Your task to perform on an android device: manage bookmarks in the chrome app Image 0: 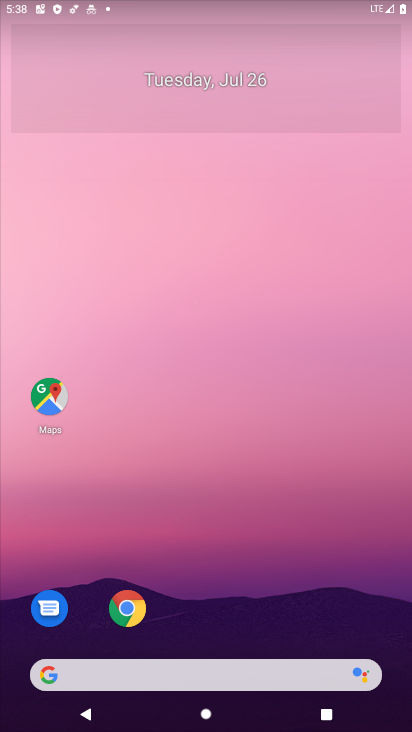
Step 0: press home button
Your task to perform on an android device: manage bookmarks in the chrome app Image 1: 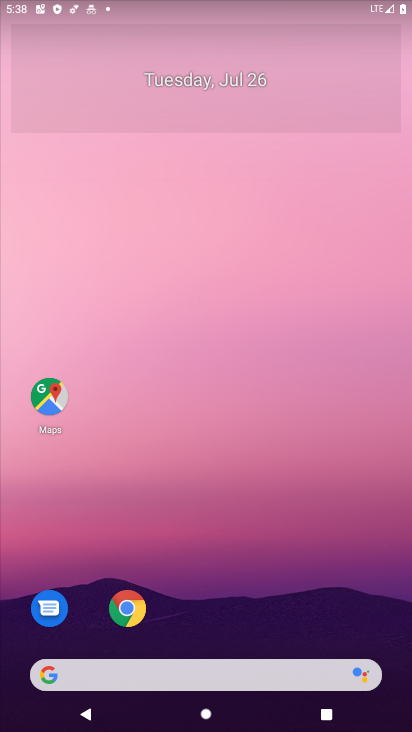
Step 1: drag from (279, 643) to (256, 126)
Your task to perform on an android device: manage bookmarks in the chrome app Image 2: 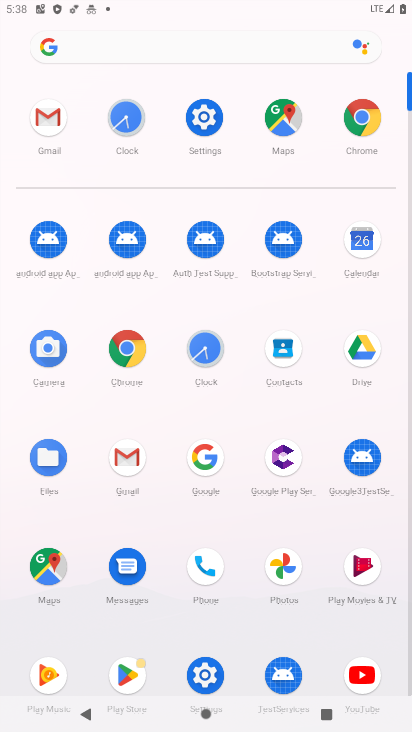
Step 2: click (361, 121)
Your task to perform on an android device: manage bookmarks in the chrome app Image 3: 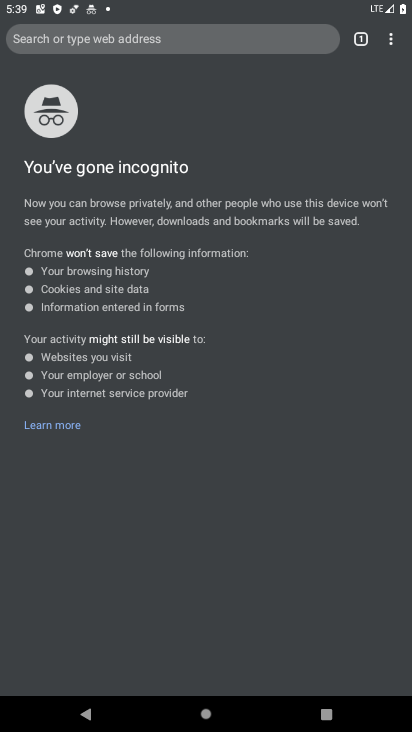
Step 3: click (389, 37)
Your task to perform on an android device: manage bookmarks in the chrome app Image 4: 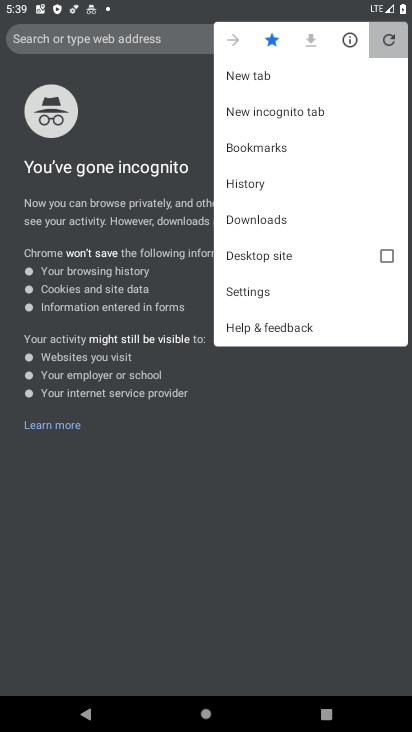
Step 4: drag from (338, 102) to (216, 146)
Your task to perform on an android device: manage bookmarks in the chrome app Image 5: 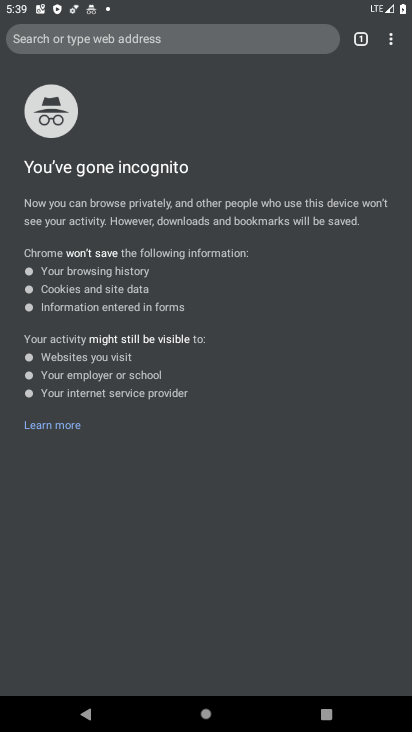
Step 5: drag from (378, 42) to (297, 149)
Your task to perform on an android device: manage bookmarks in the chrome app Image 6: 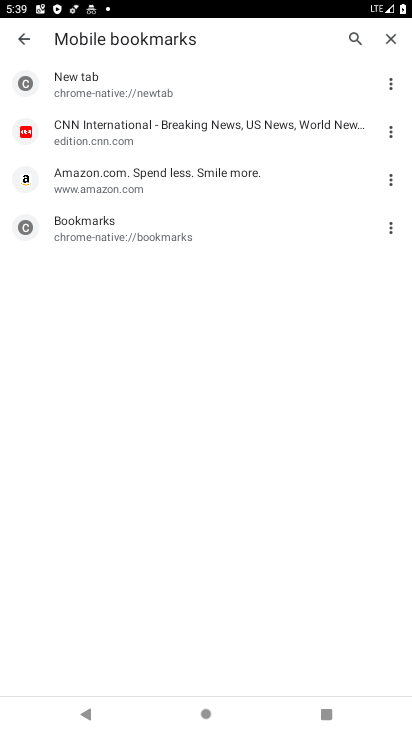
Step 6: click (392, 128)
Your task to perform on an android device: manage bookmarks in the chrome app Image 7: 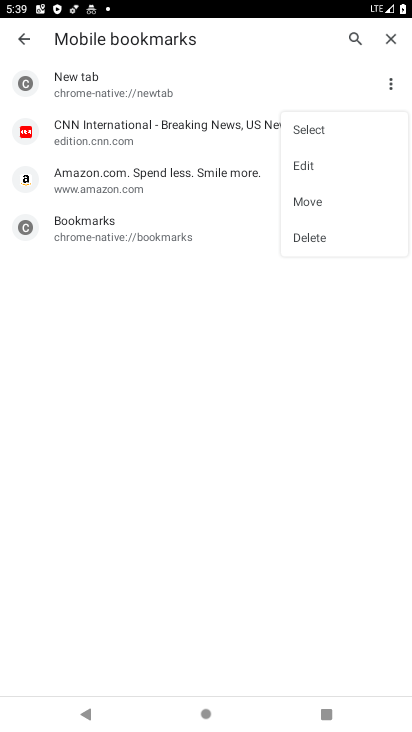
Step 7: click (303, 133)
Your task to perform on an android device: manage bookmarks in the chrome app Image 8: 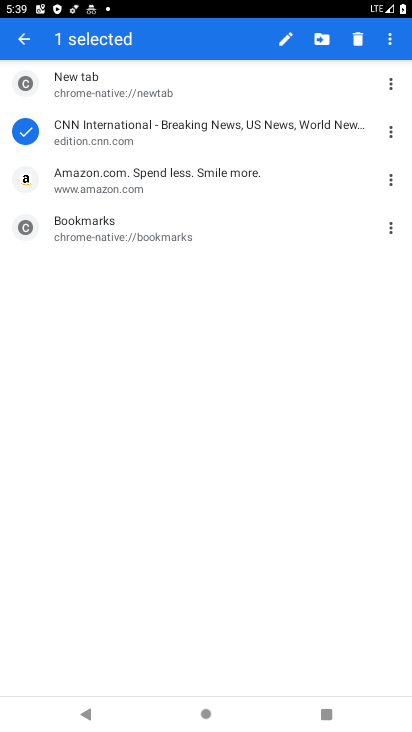
Step 8: click (283, 35)
Your task to perform on an android device: manage bookmarks in the chrome app Image 9: 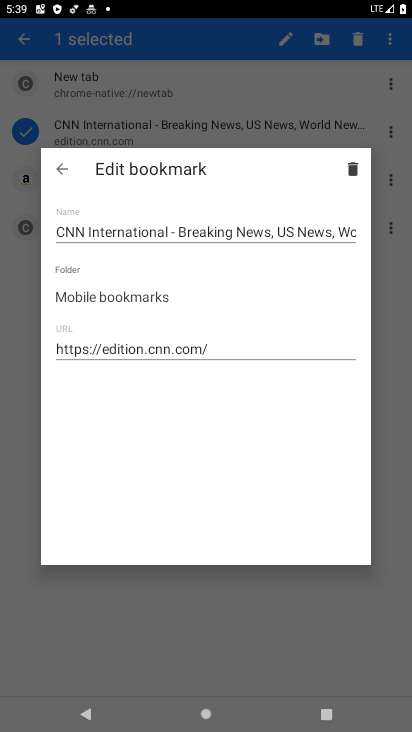
Step 9: task complete